Your task to perform on an android device: Go to sound settings Image 0: 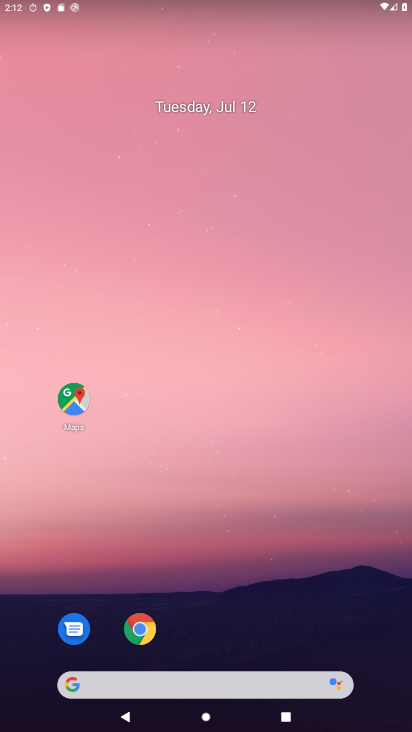
Step 0: drag from (269, 611) to (303, 100)
Your task to perform on an android device: Go to sound settings Image 1: 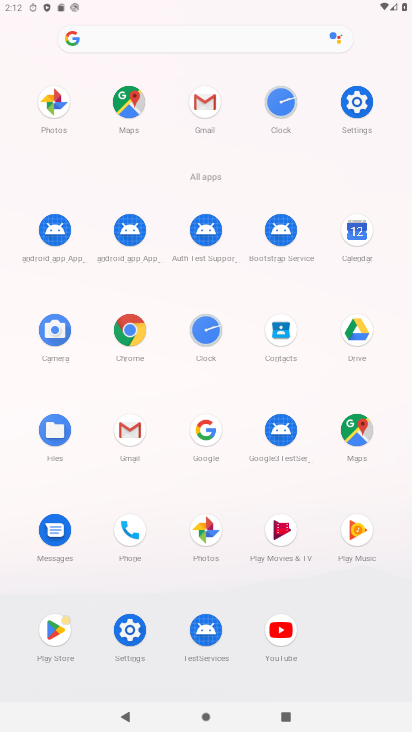
Step 1: click (358, 105)
Your task to perform on an android device: Go to sound settings Image 2: 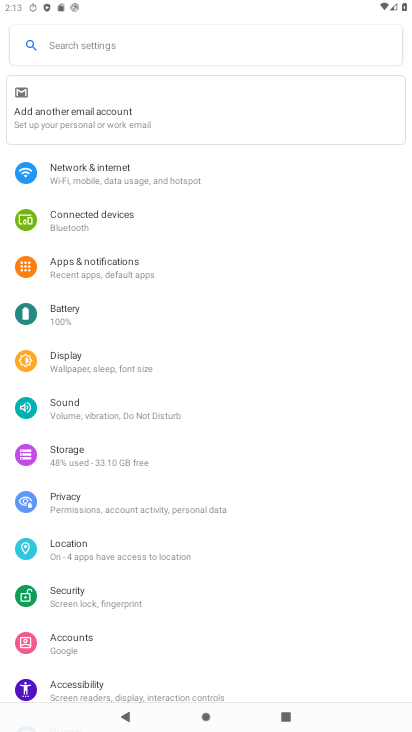
Step 2: click (98, 412)
Your task to perform on an android device: Go to sound settings Image 3: 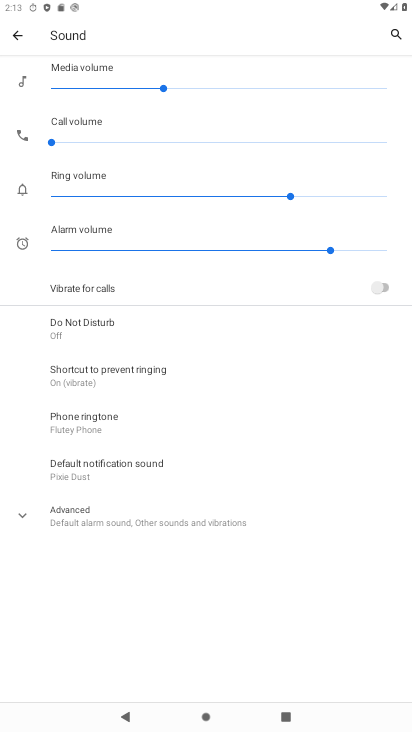
Step 3: task complete